Your task to perform on an android device: Play the last video I watched on Youtube Image 0: 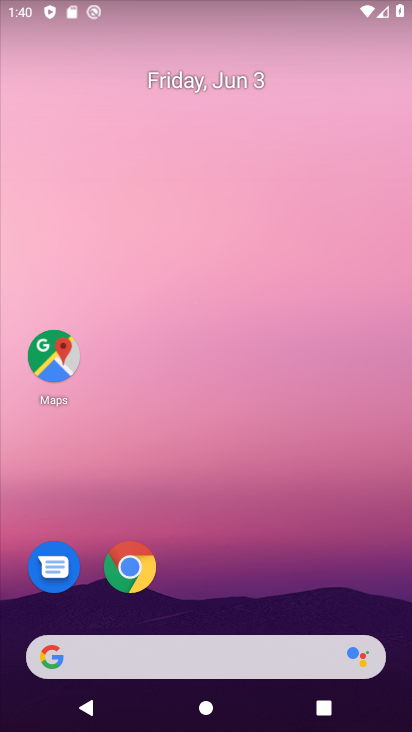
Step 0: drag from (244, 600) to (299, 49)
Your task to perform on an android device: Play the last video I watched on Youtube Image 1: 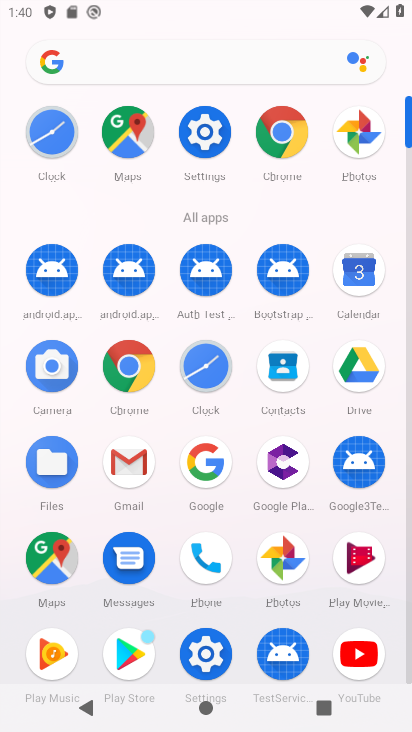
Step 1: click (351, 659)
Your task to perform on an android device: Play the last video I watched on Youtube Image 2: 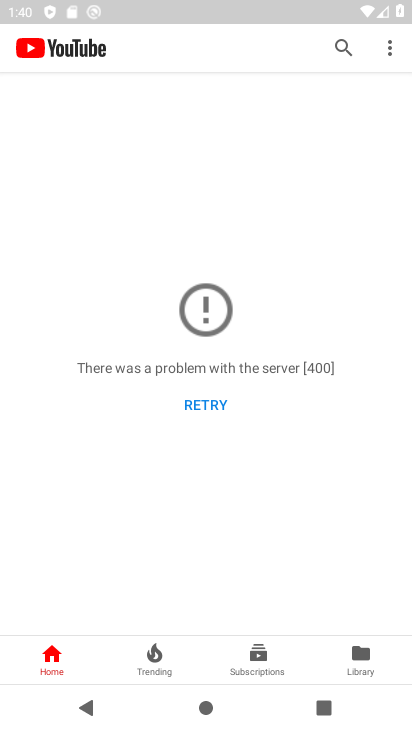
Step 2: task complete